Your task to perform on an android device: snooze an email in the gmail app Image 0: 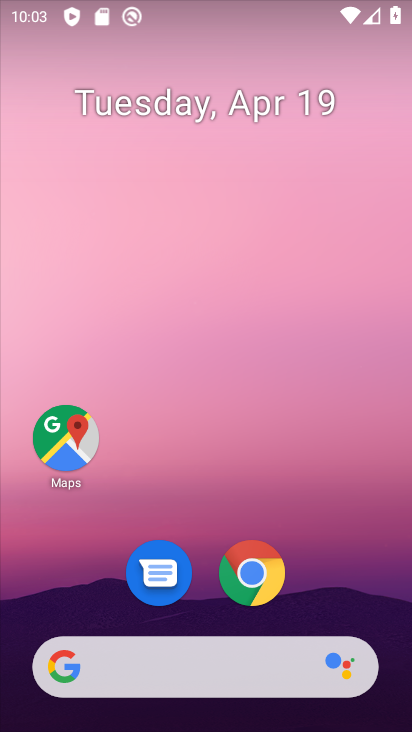
Step 0: drag from (359, 592) to (371, 108)
Your task to perform on an android device: snooze an email in the gmail app Image 1: 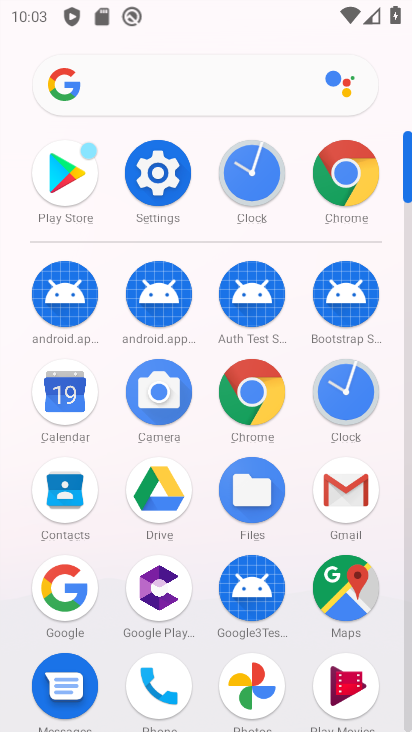
Step 1: click (339, 488)
Your task to perform on an android device: snooze an email in the gmail app Image 2: 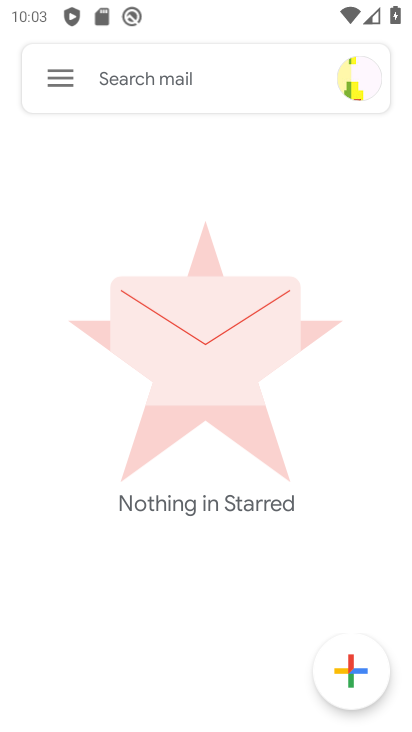
Step 2: click (66, 82)
Your task to perform on an android device: snooze an email in the gmail app Image 3: 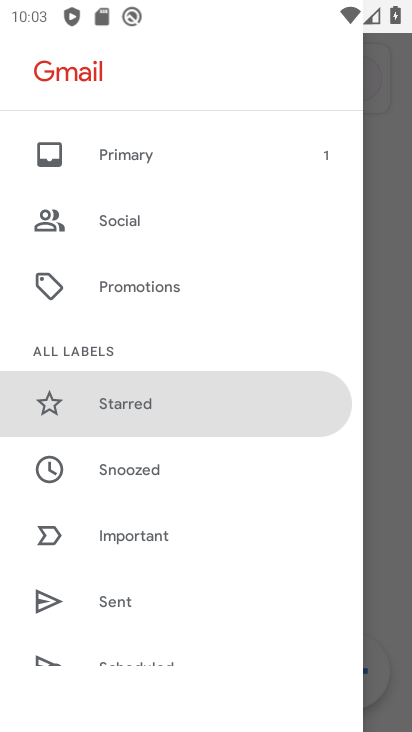
Step 3: drag from (285, 579) to (298, 253)
Your task to perform on an android device: snooze an email in the gmail app Image 4: 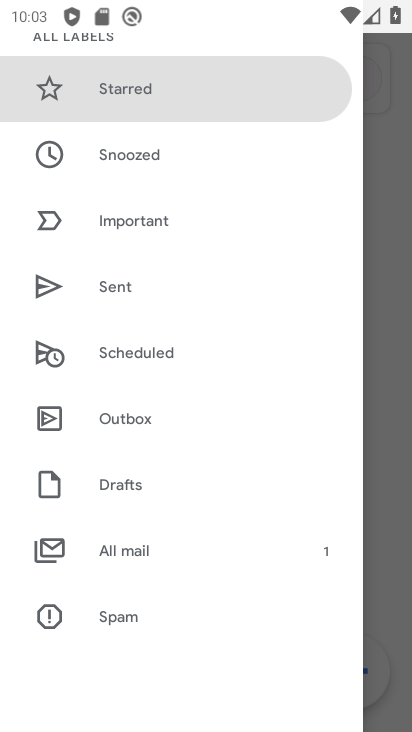
Step 4: drag from (253, 561) to (275, 277)
Your task to perform on an android device: snooze an email in the gmail app Image 5: 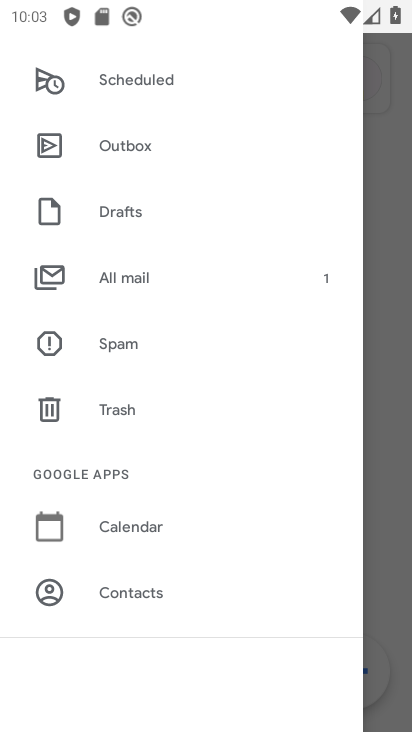
Step 5: drag from (275, 227) to (270, 486)
Your task to perform on an android device: snooze an email in the gmail app Image 6: 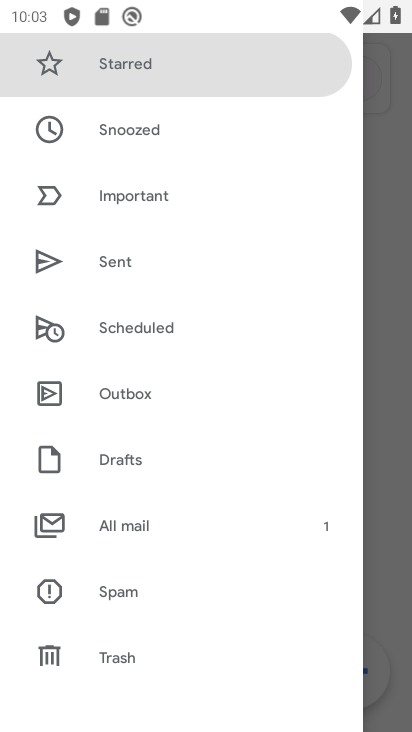
Step 6: drag from (271, 240) to (245, 489)
Your task to perform on an android device: snooze an email in the gmail app Image 7: 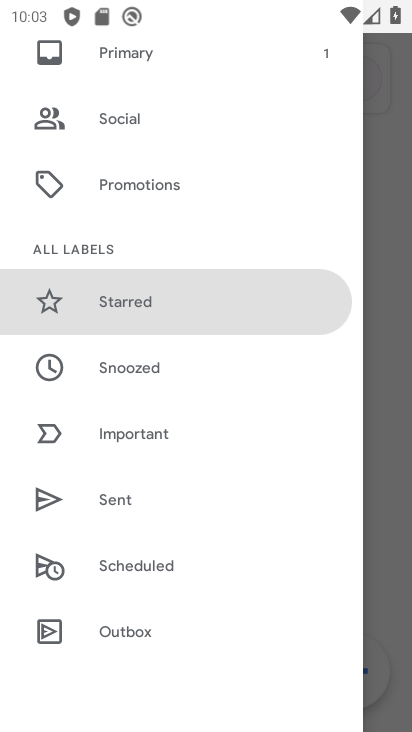
Step 7: click (119, 365)
Your task to perform on an android device: snooze an email in the gmail app Image 8: 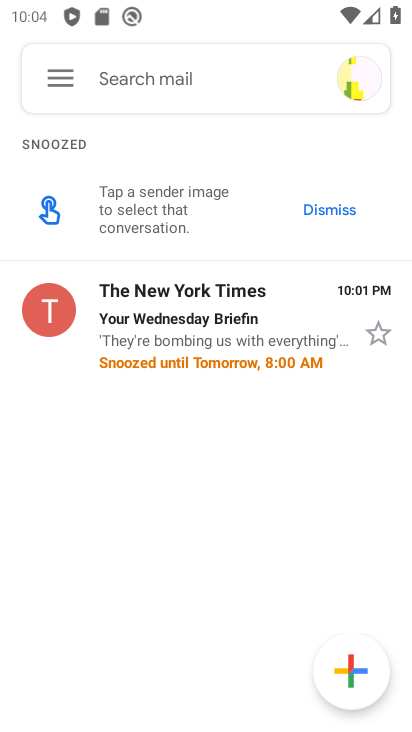
Step 8: task complete